Your task to perform on an android device: Open Chrome and go to settings Image 0: 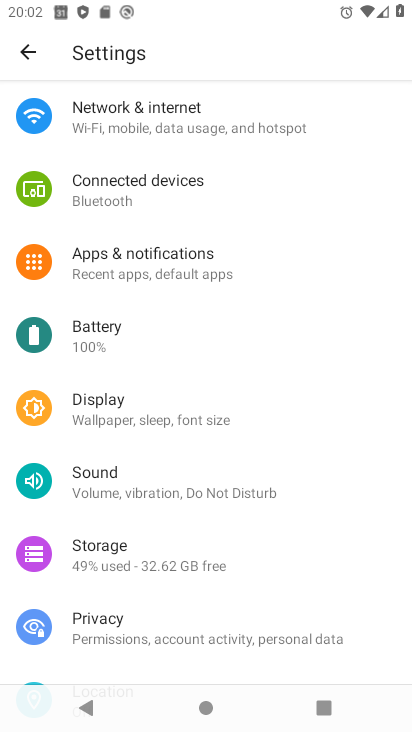
Step 0: press home button
Your task to perform on an android device: Open Chrome and go to settings Image 1: 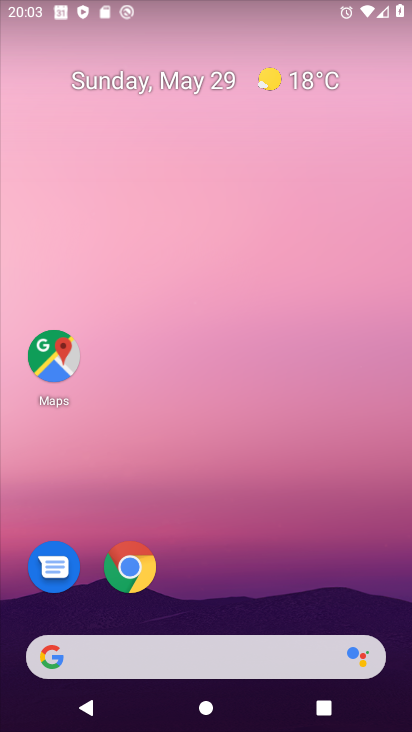
Step 1: click (140, 578)
Your task to perform on an android device: Open Chrome and go to settings Image 2: 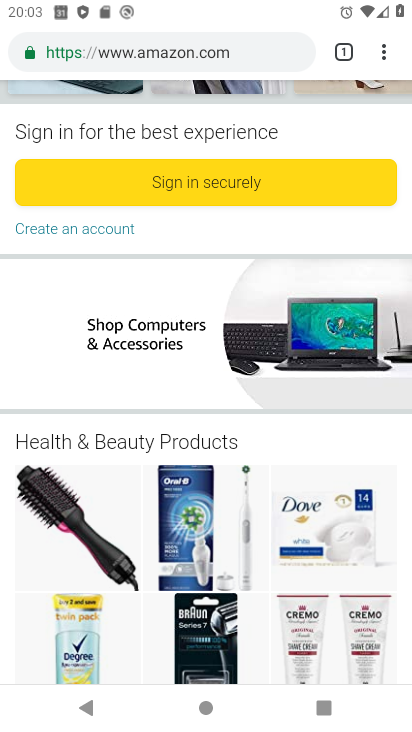
Step 2: click (377, 42)
Your task to perform on an android device: Open Chrome and go to settings Image 3: 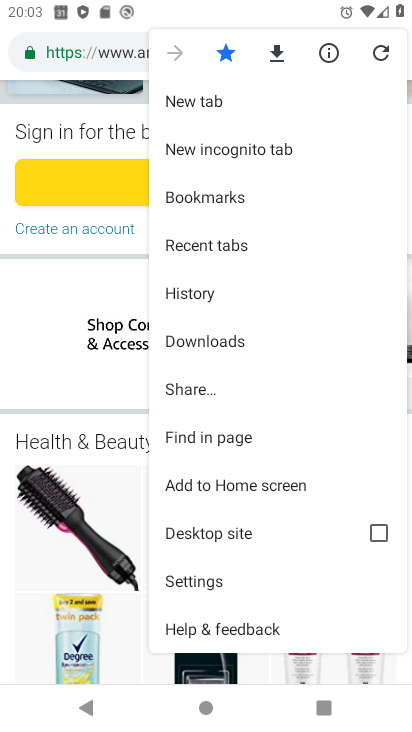
Step 3: click (199, 584)
Your task to perform on an android device: Open Chrome and go to settings Image 4: 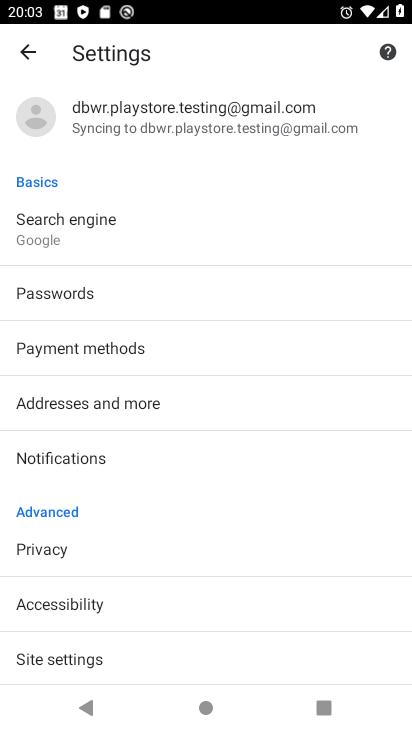
Step 4: task complete